Your task to perform on an android device: turn vacation reply on in the gmail app Image 0: 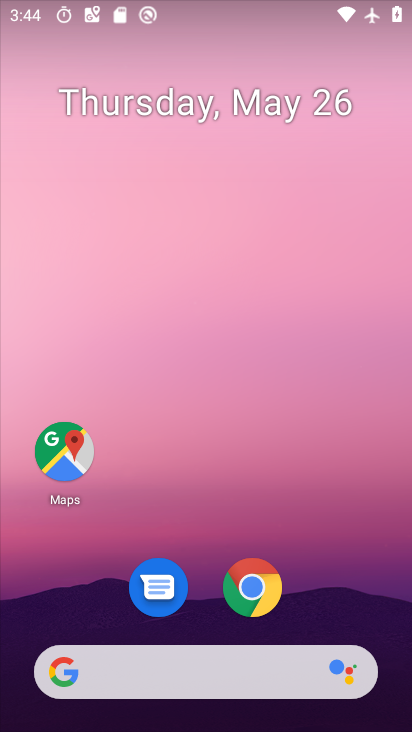
Step 0: drag from (336, 604) to (262, 208)
Your task to perform on an android device: turn vacation reply on in the gmail app Image 1: 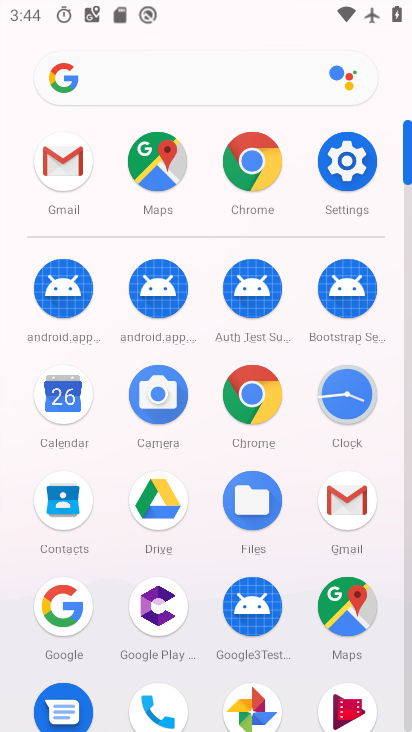
Step 1: click (345, 486)
Your task to perform on an android device: turn vacation reply on in the gmail app Image 2: 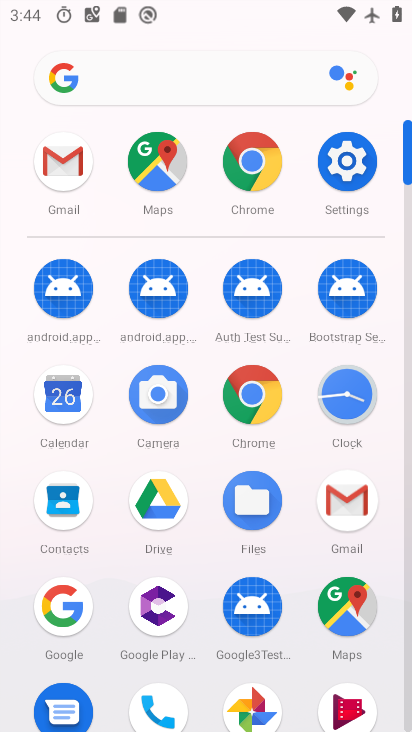
Step 2: click (345, 486)
Your task to perform on an android device: turn vacation reply on in the gmail app Image 3: 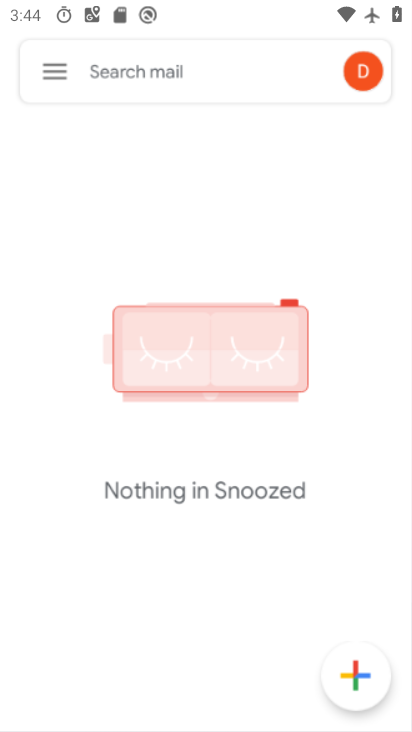
Step 3: click (345, 487)
Your task to perform on an android device: turn vacation reply on in the gmail app Image 4: 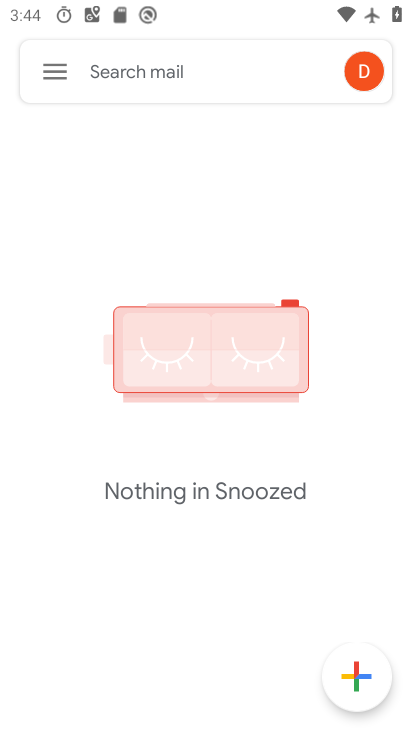
Step 4: click (41, 73)
Your task to perform on an android device: turn vacation reply on in the gmail app Image 5: 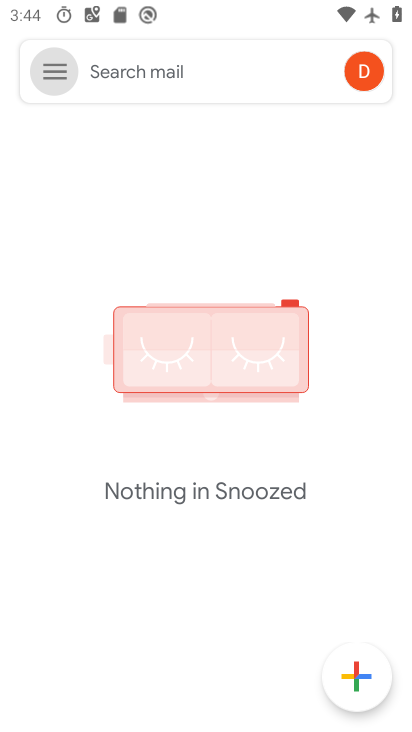
Step 5: click (41, 73)
Your task to perform on an android device: turn vacation reply on in the gmail app Image 6: 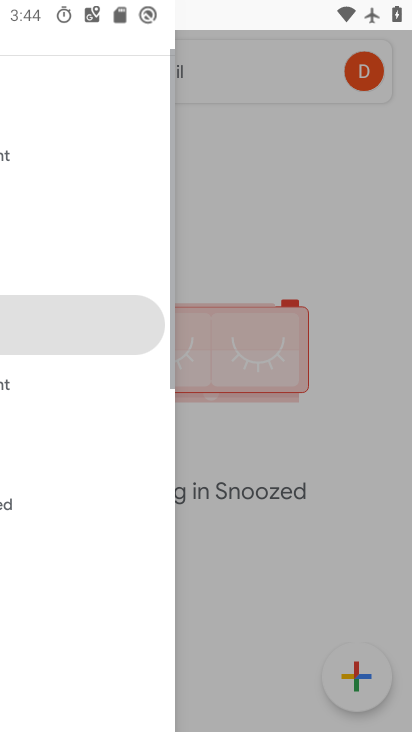
Step 6: click (41, 73)
Your task to perform on an android device: turn vacation reply on in the gmail app Image 7: 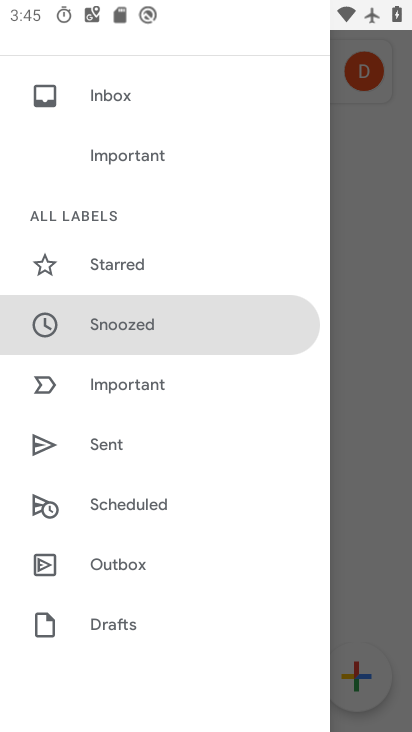
Step 7: drag from (133, 458) to (194, 176)
Your task to perform on an android device: turn vacation reply on in the gmail app Image 8: 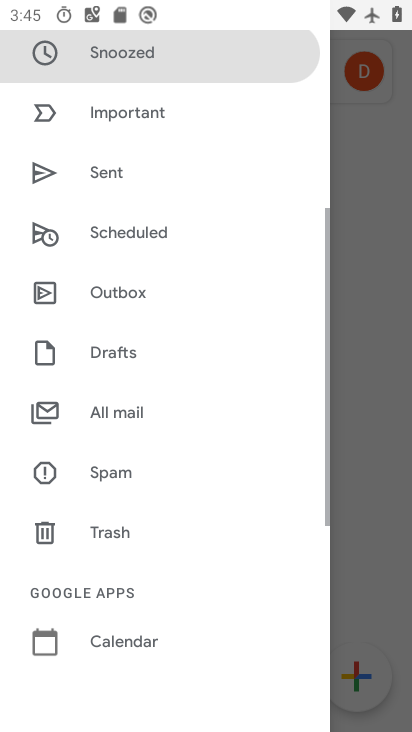
Step 8: drag from (171, 348) to (144, 53)
Your task to perform on an android device: turn vacation reply on in the gmail app Image 9: 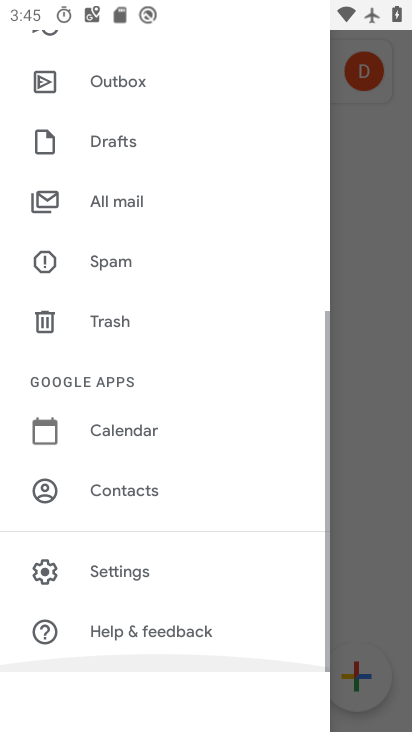
Step 9: drag from (123, 359) to (123, 48)
Your task to perform on an android device: turn vacation reply on in the gmail app Image 10: 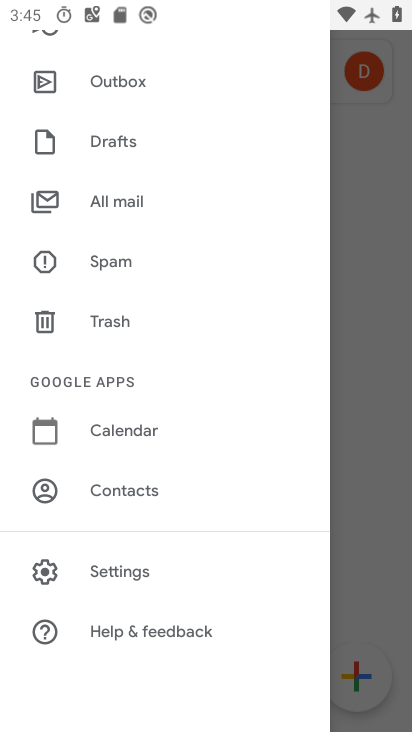
Step 10: click (140, 575)
Your task to perform on an android device: turn vacation reply on in the gmail app Image 11: 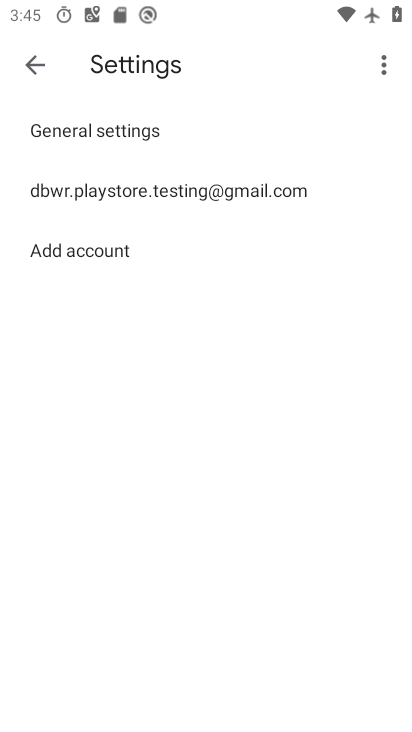
Step 11: click (132, 191)
Your task to perform on an android device: turn vacation reply on in the gmail app Image 12: 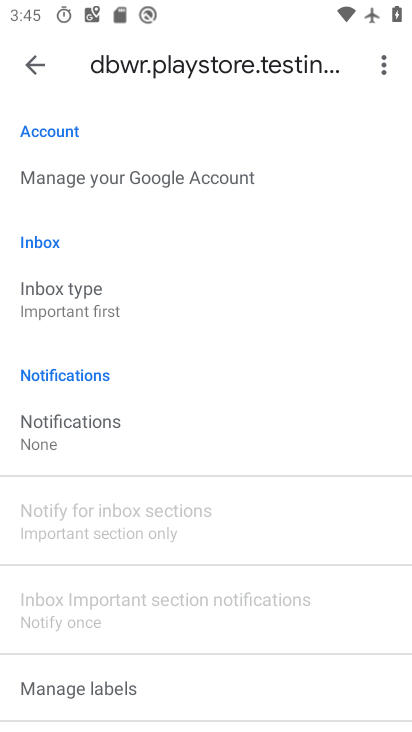
Step 12: drag from (87, 478) to (20, 190)
Your task to perform on an android device: turn vacation reply on in the gmail app Image 13: 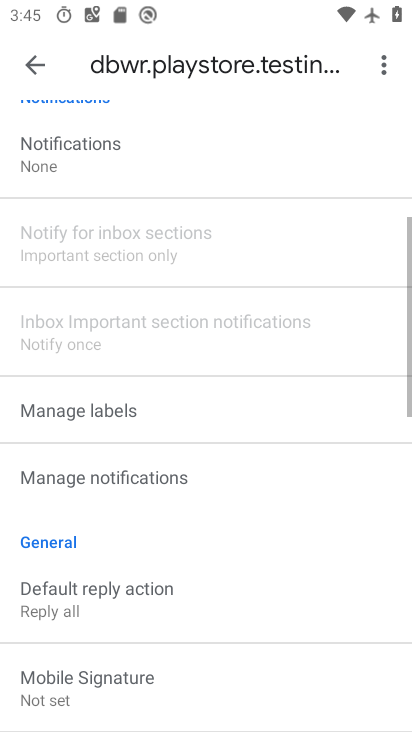
Step 13: drag from (108, 460) to (126, 242)
Your task to perform on an android device: turn vacation reply on in the gmail app Image 14: 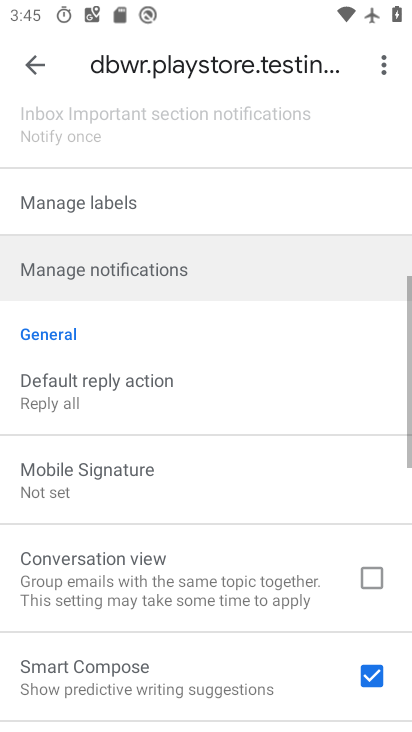
Step 14: drag from (149, 448) to (149, 188)
Your task to perform on an android device: turn vacation reply on in the gmail app Image 15: 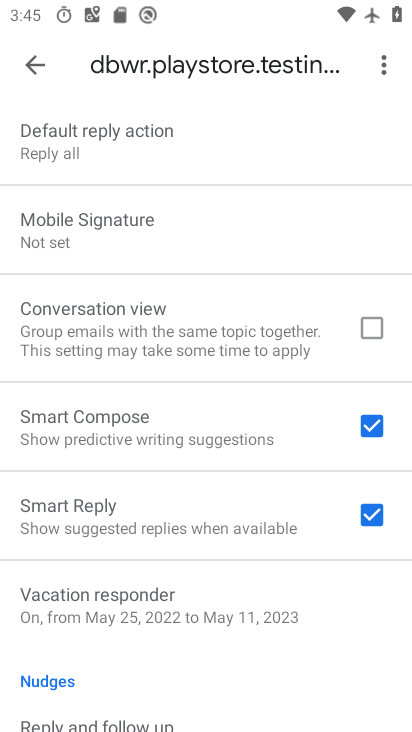
Step 15: click (105, 584)
Your task to perform on an android device: turn vacation reply on in the gmail app Image 16: 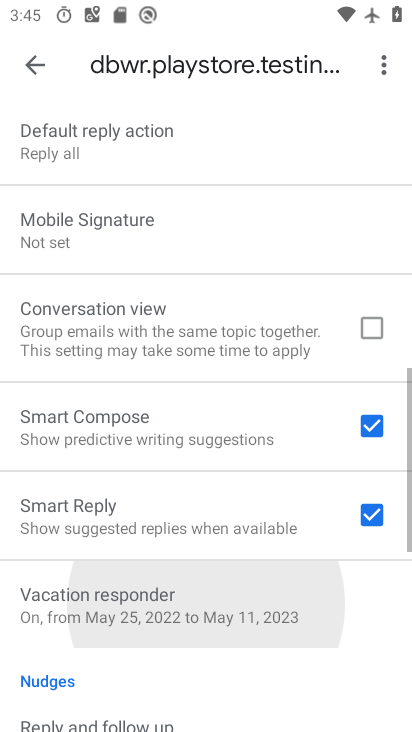
Step 16: click (116, 609)
Your task to perform on an android device: turn vacation reply on in the gmail app Image 17: 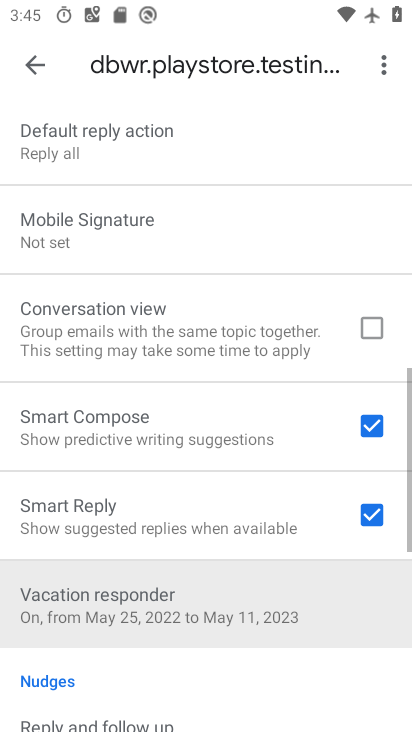
Step 17: click (118, 610)
Your task to perform on an android device: turn vacation reply on in the gmail app Image 18: 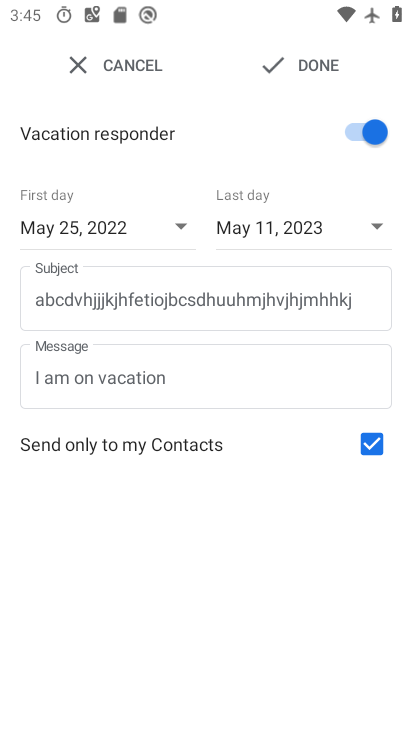
Step 18: task complete